Your task to perform on an android device: Show me recent news Image 0: 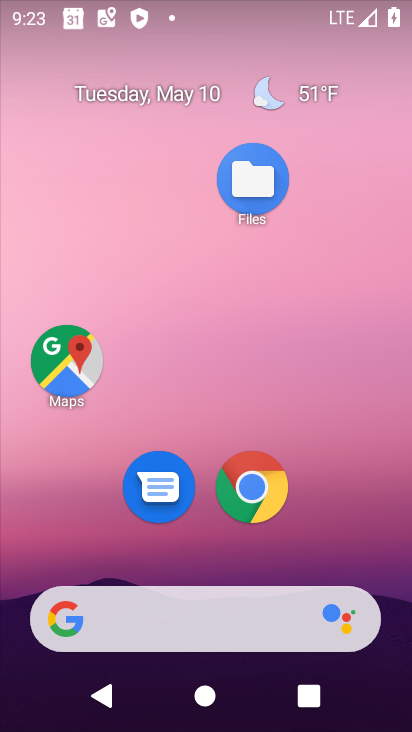
Step 0: drag from (237, 538) to (208, 98)
Your task to perform on an android device: Show me recent news Image 1: 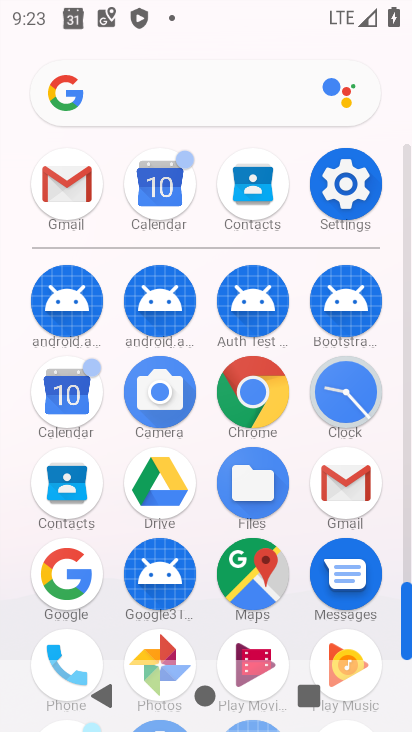
Step 1: click (61, 570)
Your task to perform on an android device: Show me recent news Image 2: 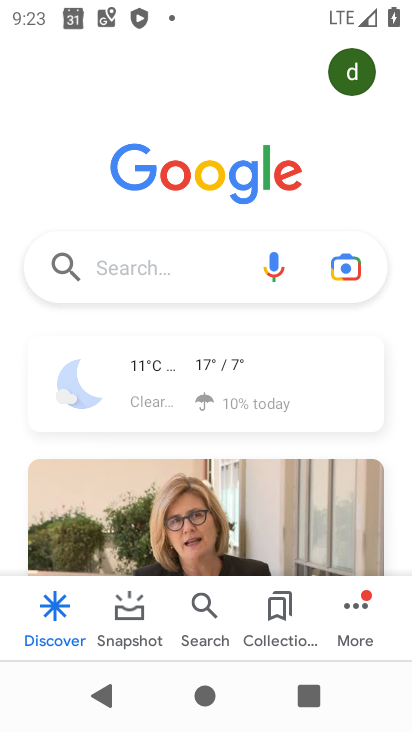
Step 2: click (169, 274)
Your task to perform on an android device: Show me recent news Image 3: 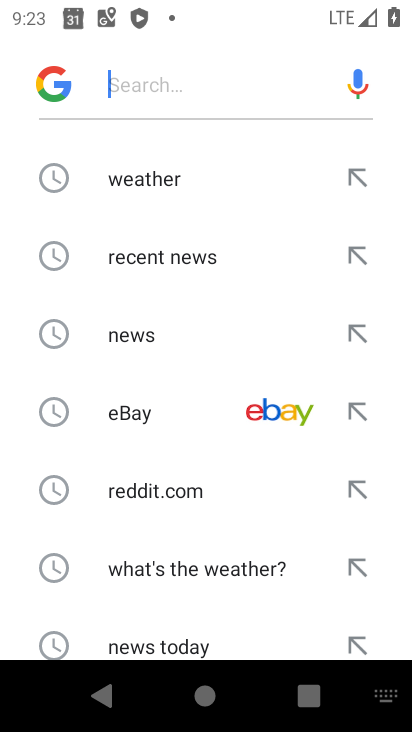
Step 3: click (149, 351)
Your task to perform on an android device: Show me recent news Image 4: 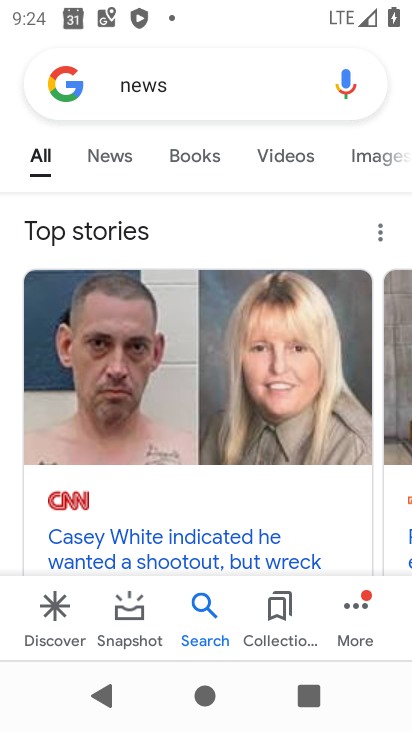
Step 4: task complete